Your task to perform on an android device: delete a single message in the gmail app Image 0: 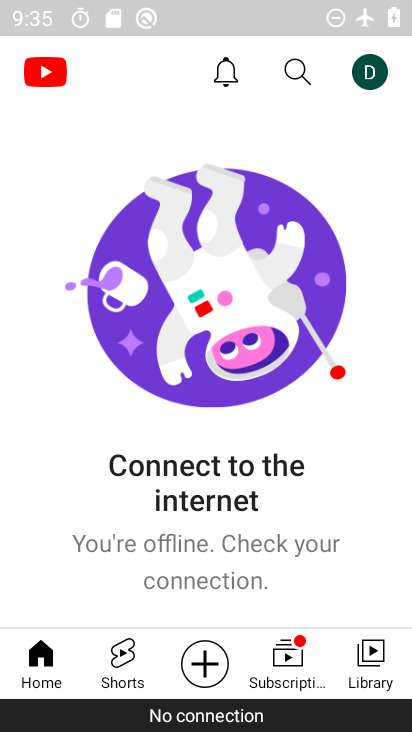
Step 0: press home button
Your task to perform on an android device: delete a single message in the gmail app Image 1: 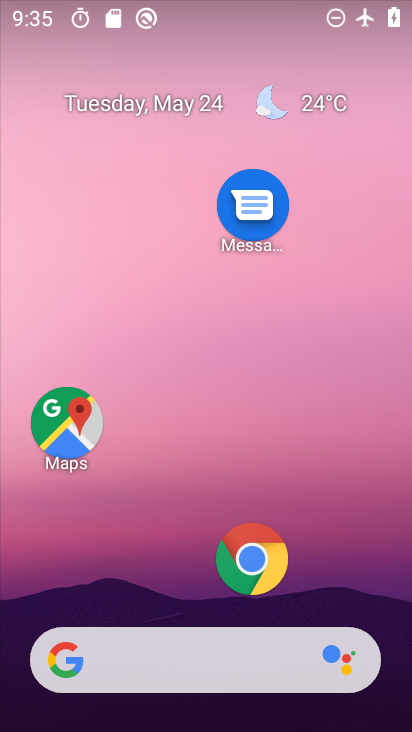
Step 1: drag from (194, 600) to (194, 190)
Your task to perform on an android device: delete a single message in the gmail app Image 2: 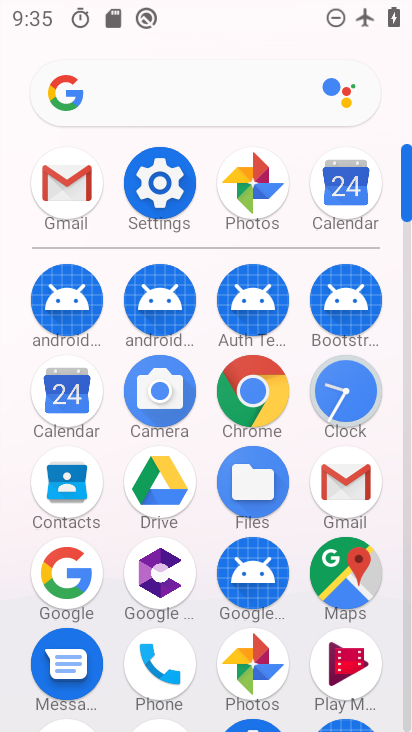
Step 2: click (91, 203)
Your task to perform on an android device: delete a single message in the gmail app Image 3: 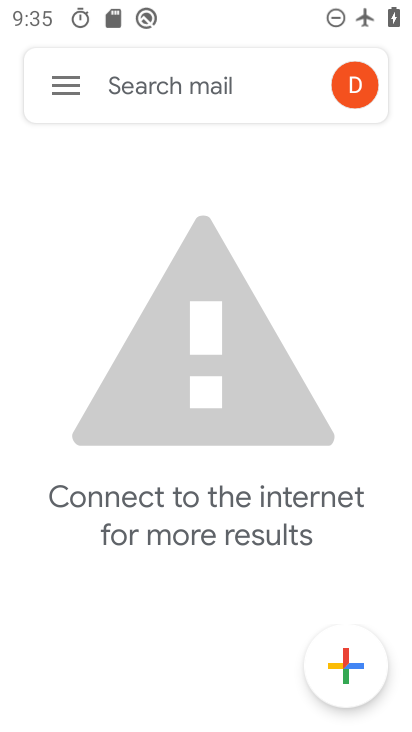
Step 3: click (73, 96)
Your task to perform on an android device: delete a single message in the gmail app Image 4: 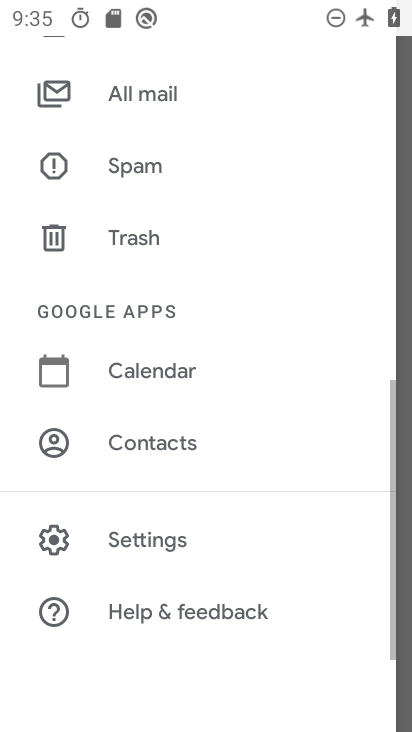
Step 4: click (173, 94)
Your task to perform on an android device: delete a single message in the gmail app Image 5: 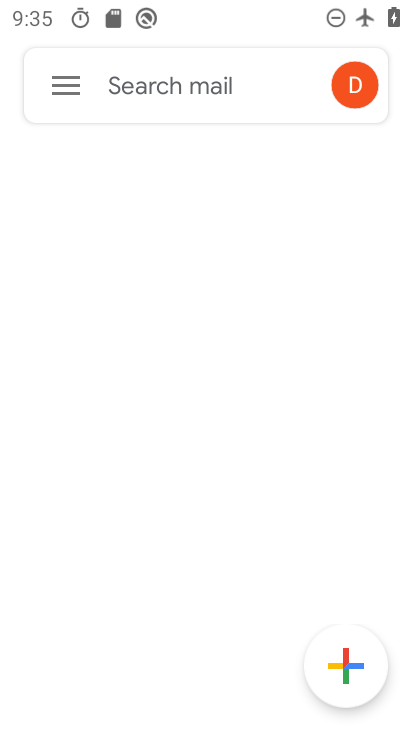
Step 5: task complete